Your task to perform on an android device: set the timer Image 0: 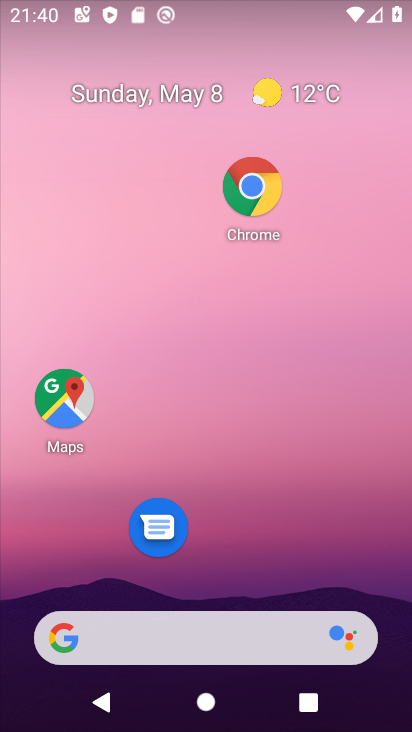
Step 0: drag from (306, 513) to (355, 270)
Your task to perform on an android device: set the timer Image 1: 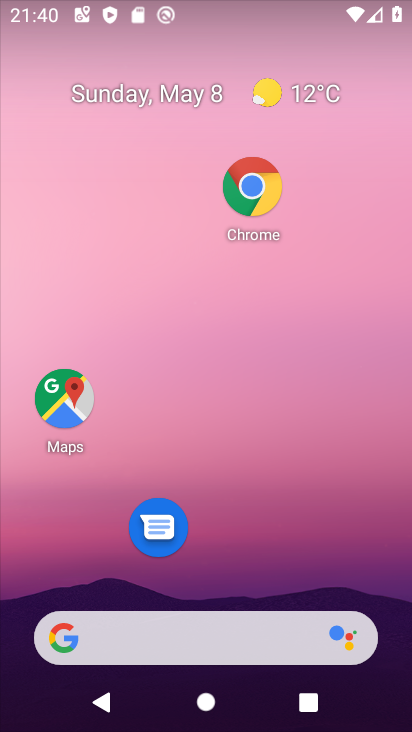
Step 1: drag from (278, 527) to (281, 298)
Your task to perform on an android device: set the timer Image 2: 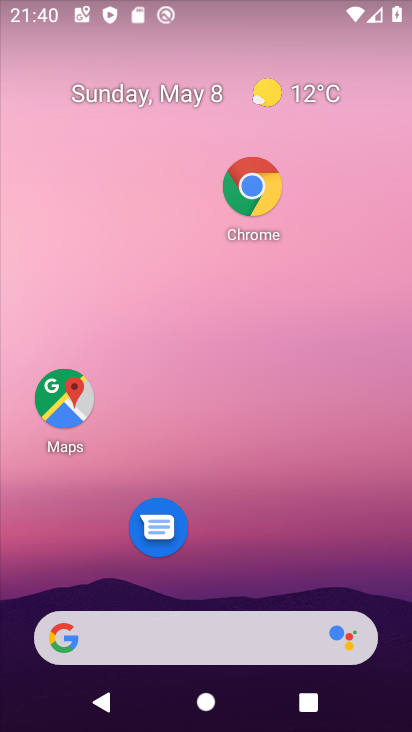
Step 2: drag from (288, 543) to (298, 246)
Your task to perform on an android device: set the timer Image 3: 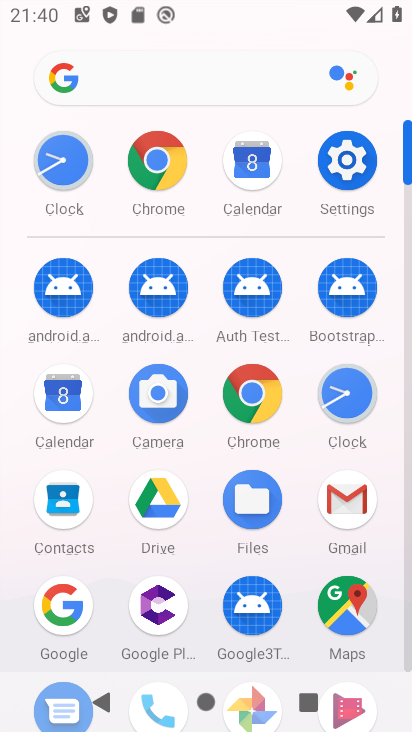
Step 3: click (357, 377)
Your task to perform on an android device: set the timer Image 4: 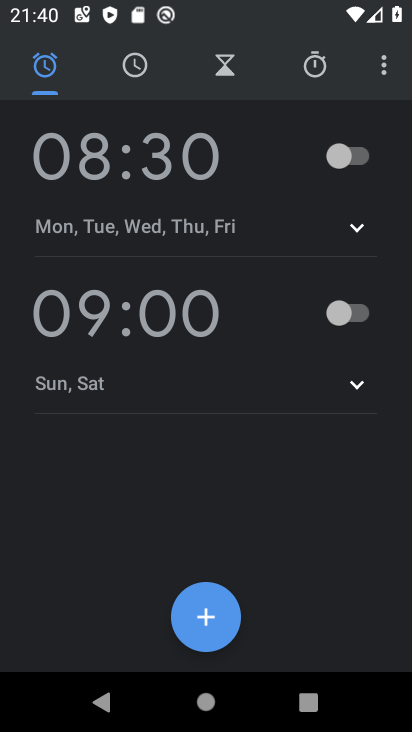
Step 4: click (383, 72)
Your task to perform on an android device: set the timer Image 5: 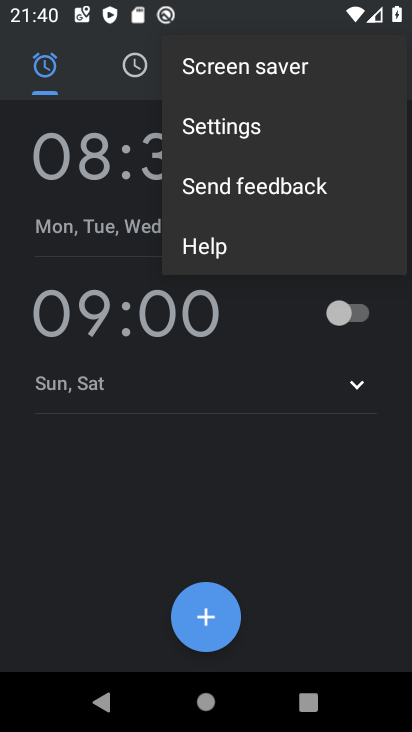
Step 5: click (236, 128)
Your task to perform on an android device: set the timer Image 6: 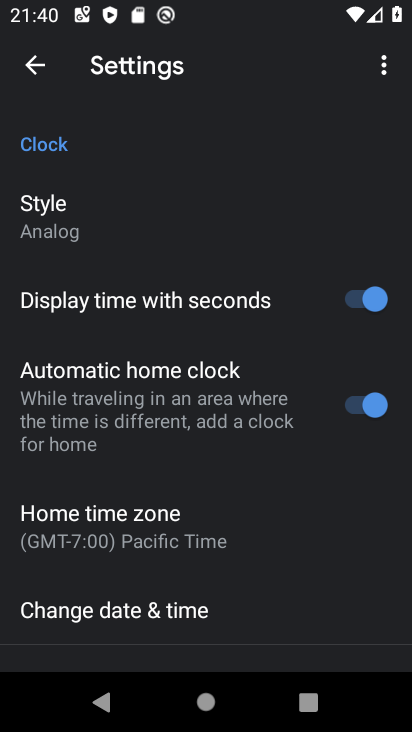
Step 6: drag from (169, 547) to (157, 294)
Your task to perform on an android device: set the timer Image 7: 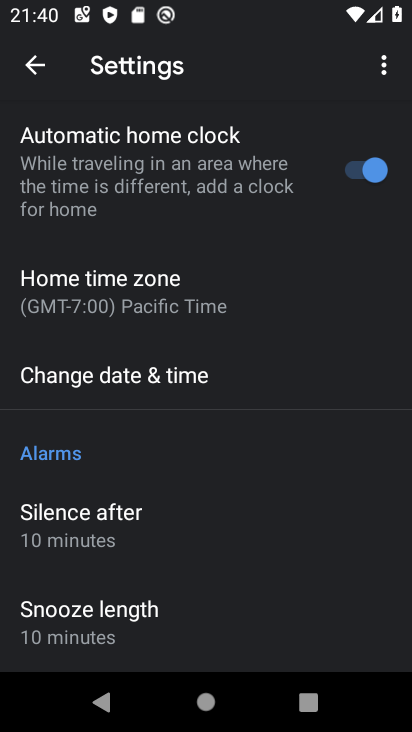
Step 7: drag from (162, 235) to (134, 558)
Your task to perform on an android device: set the timer Image 8: 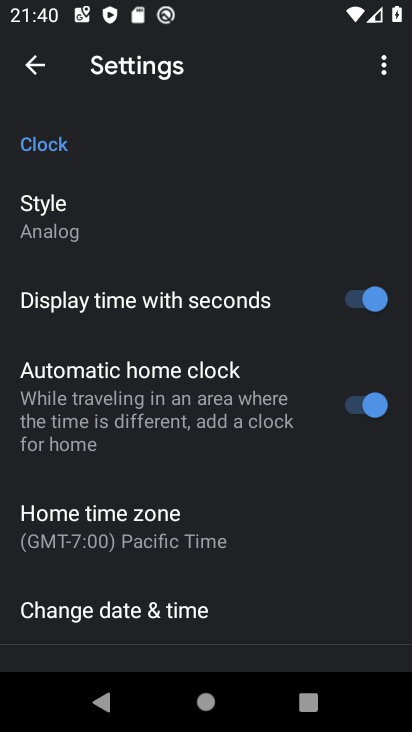
Step 8: press back button
Your task to perform on an android device: set the timer Image 9: 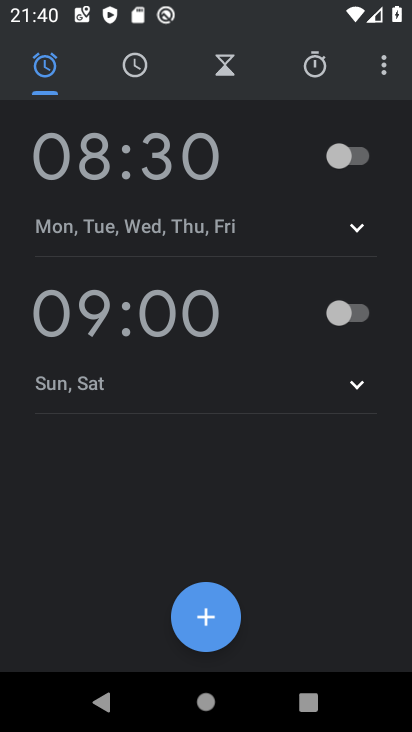
Step 9: click (239, 61)
Your task to perform on an android device: set the timer Image 10: 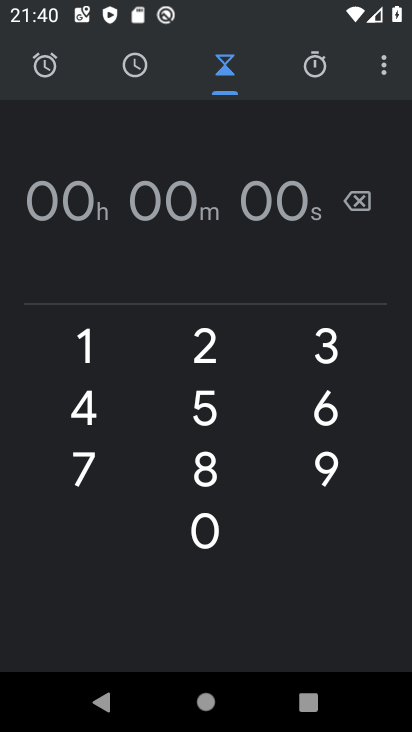
Step 10: click (31, 208)
Your task to perform on an android device: set the timer Image 11: 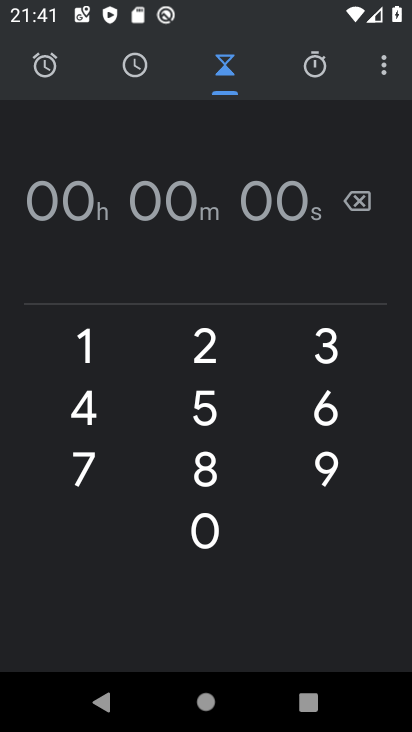
Step 11: type "09"
Your task to perform on an android device: set the timer Image 12: 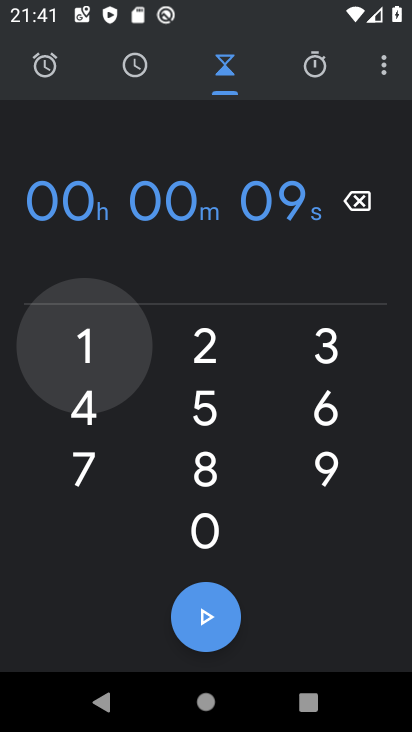
Step 12: type "999"
Your task to perform on an android device: set the timer Image 13: 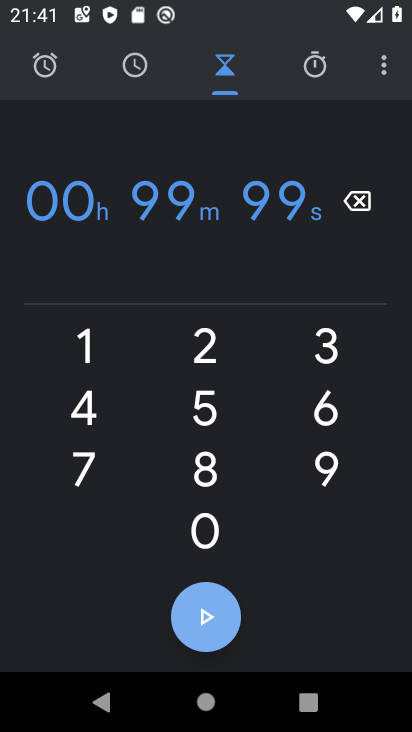
Step 13: type "00"
Your task to perform on an android device: set the timer Image 14: 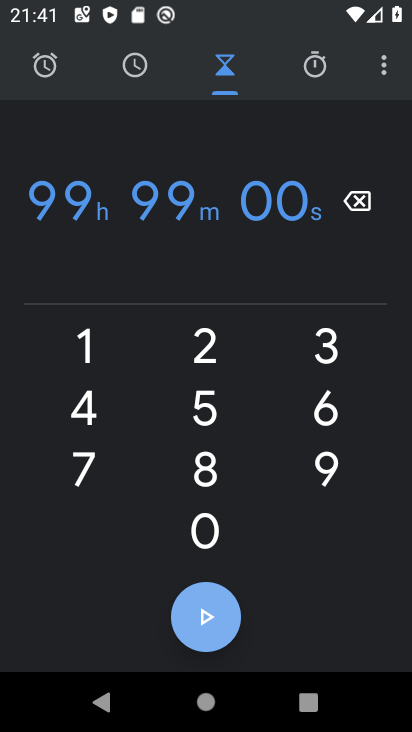
Step 14: click (216, 624)
Your task to perform on an android device: set the timer Image 15: 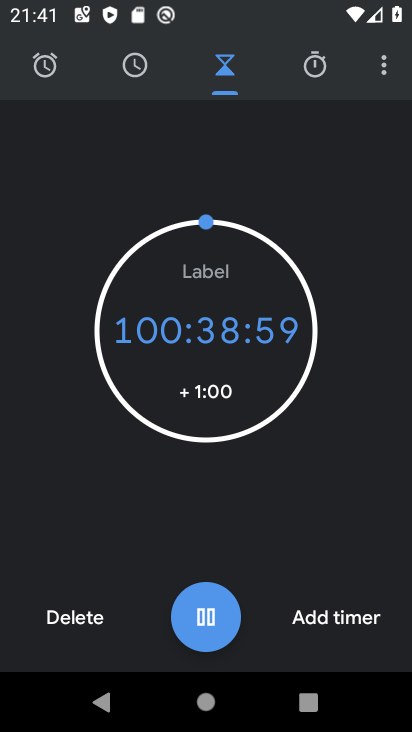
Step 15: click (203, 610)
Your task to perform on an android device: set the timer Image 16: 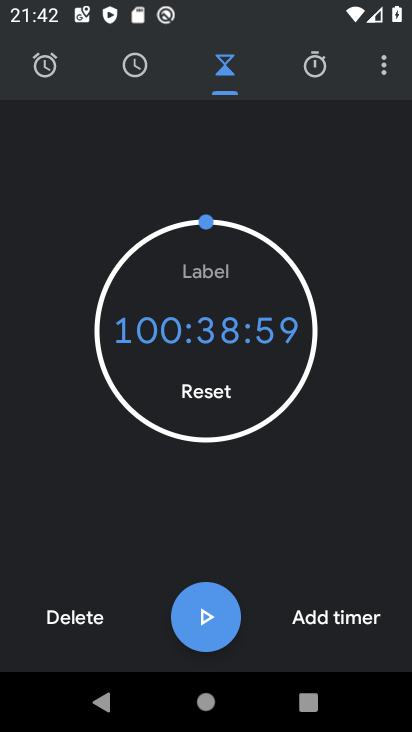
Step 16: task complete